Your task to perform on an android device: change the clock display to analog Image 0: 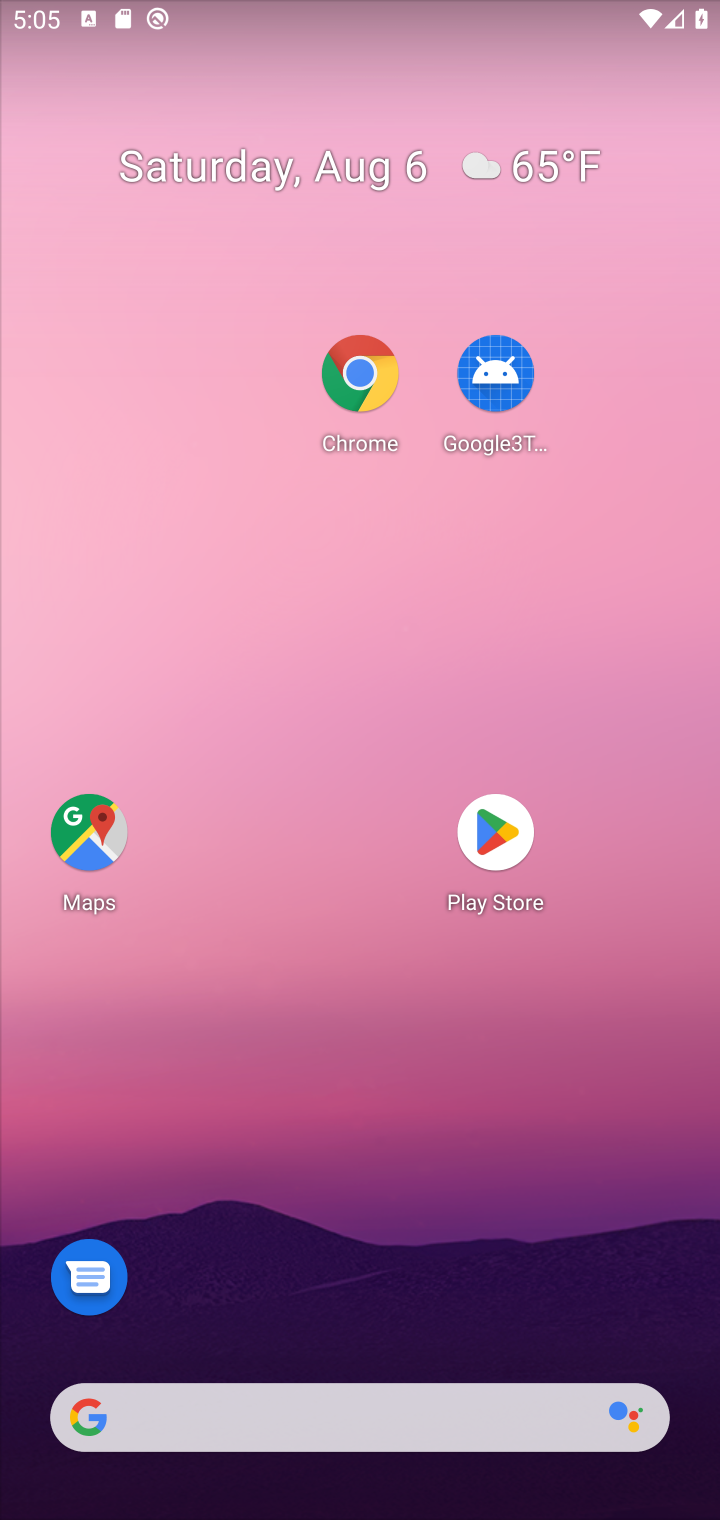
Step 0: drag from (275, 1414) to (199, 66)
Your task to perform on an android device: change the clock display to analog Image 1: 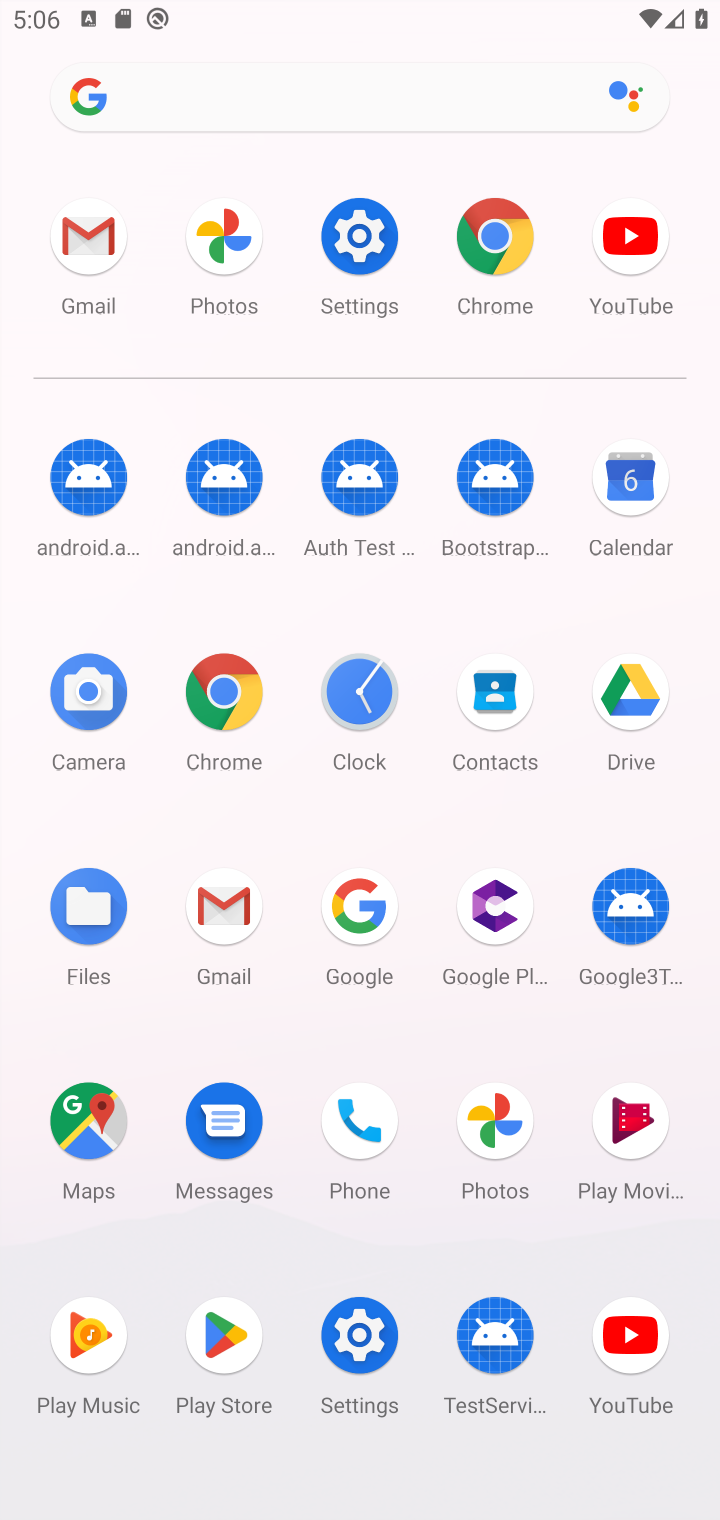
Step 1: click (349, 1322)
Your task to perform on an android device: change the clock display to analog Image 2: 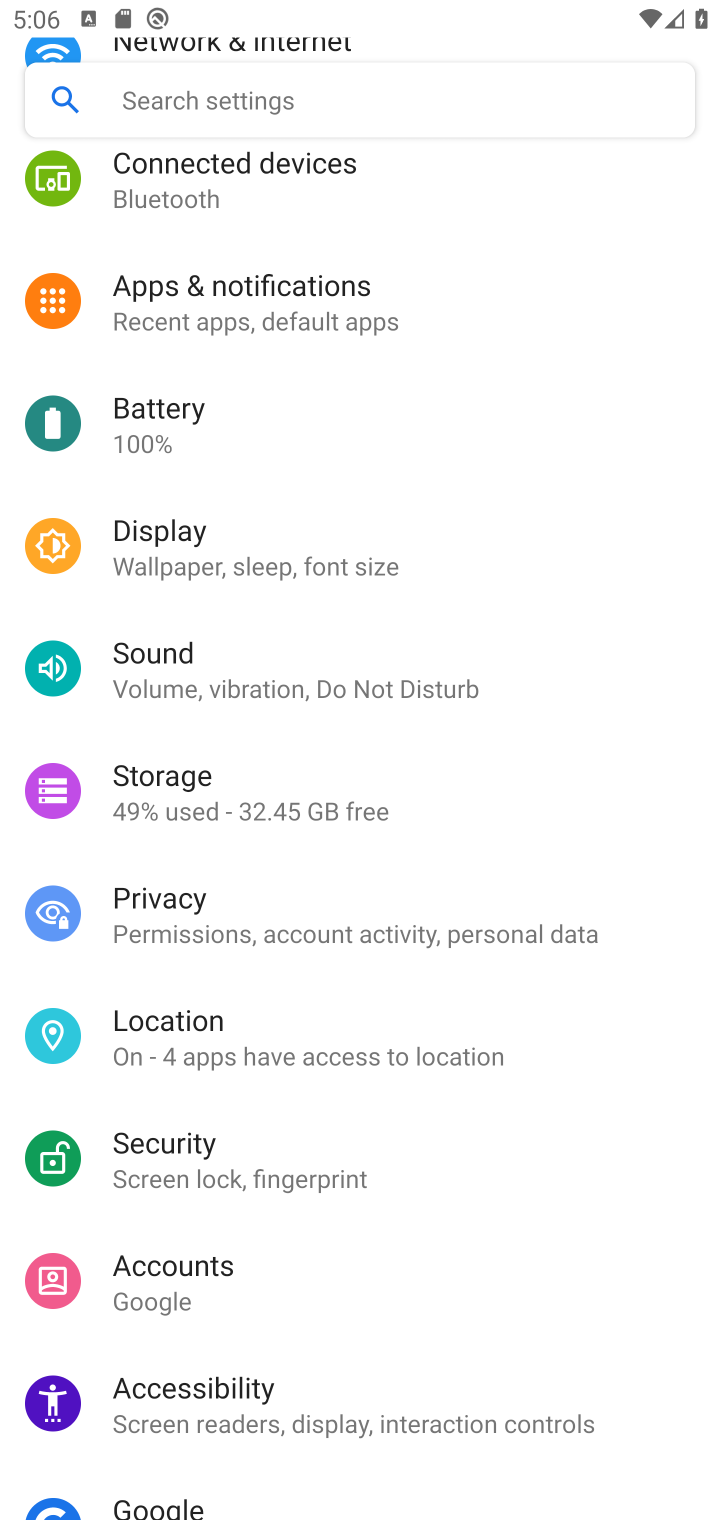
Step 2: press home button
Your task to perform on an android device: change the clock display to analog Image 3: 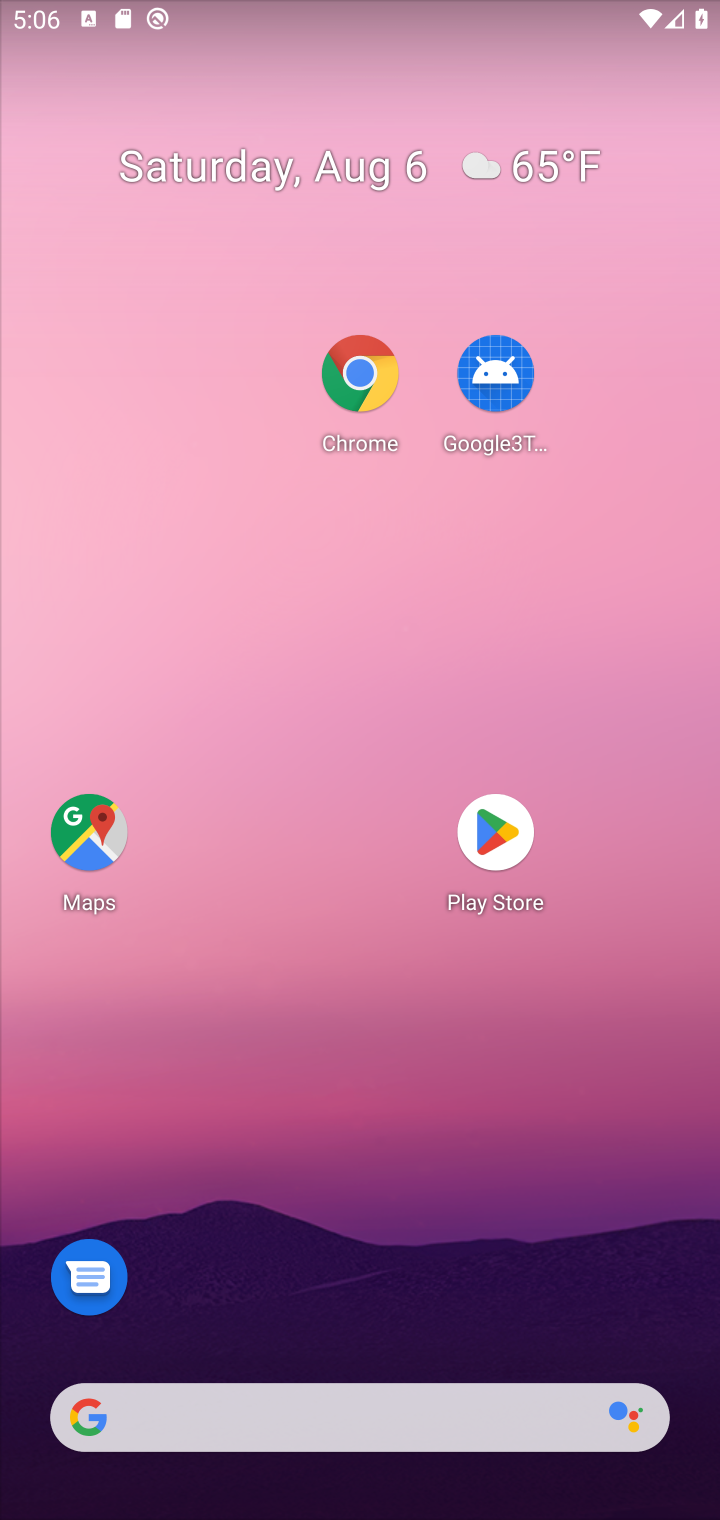
Step 3: drag from (428, 852) to (451, 305)
Your task to perform on an android device: change the clock display to analog Image 4: 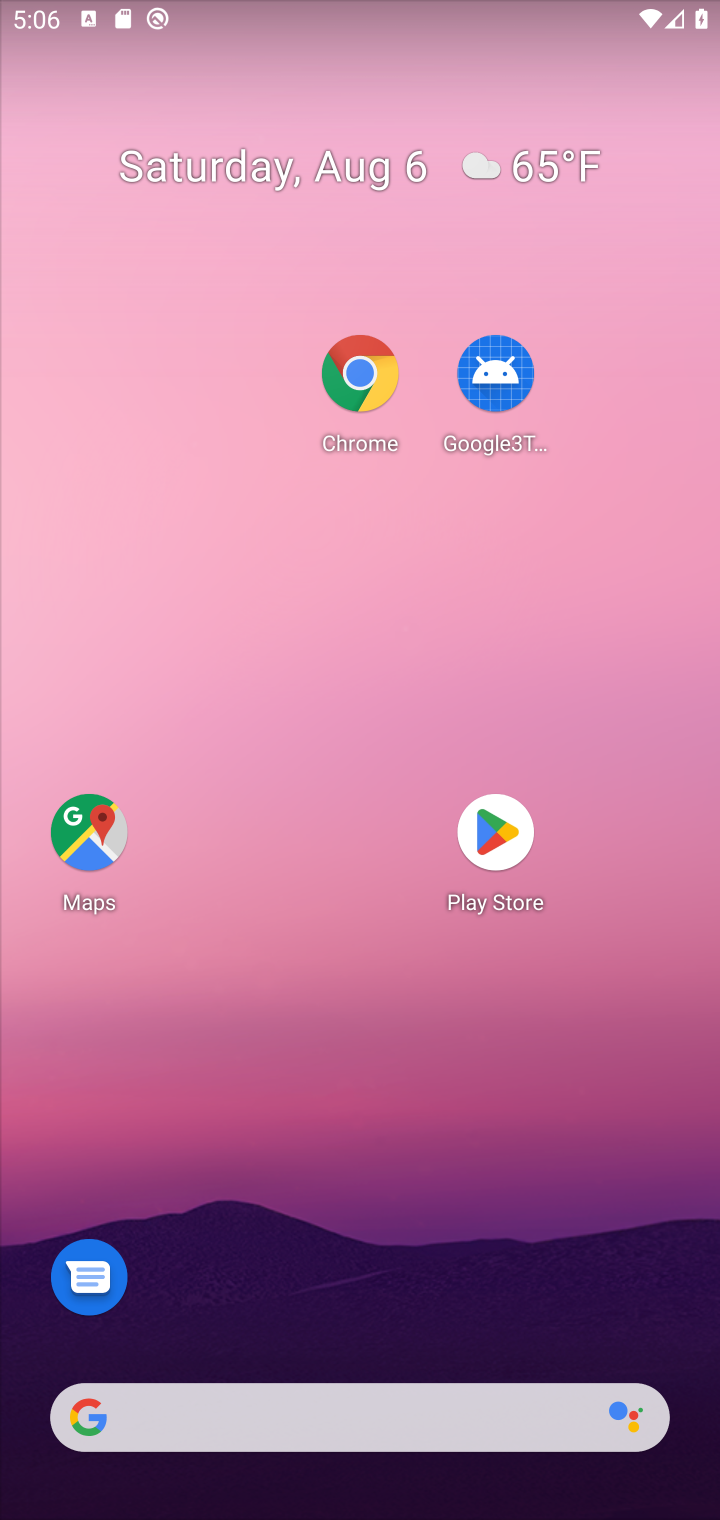
Step 4: drag from (535, 1360) to (519, 534)
Your task to perform on an android device: change the clock display to analog Image 5: 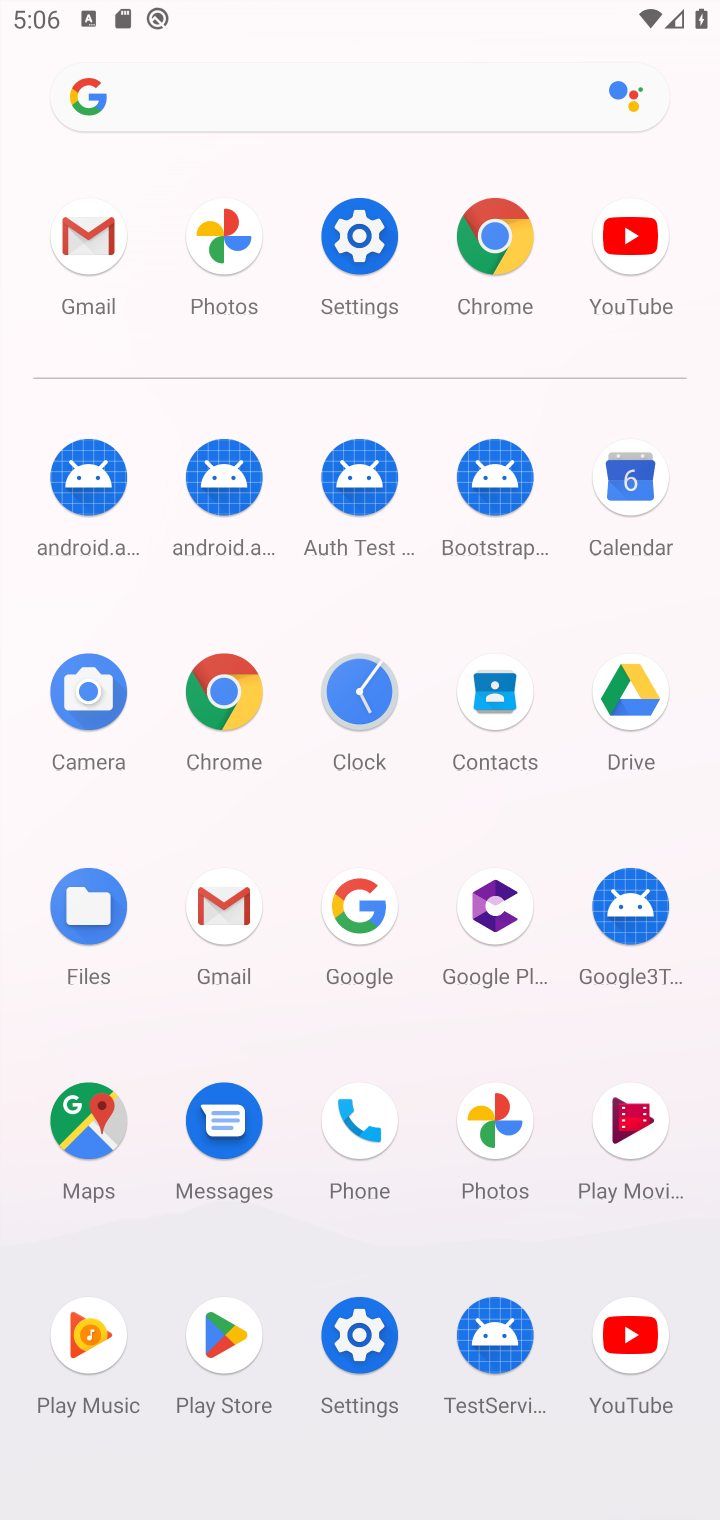
Step 5: click (366, 702)
Your task to perform on an android device: change the clock display to analog Image 6: 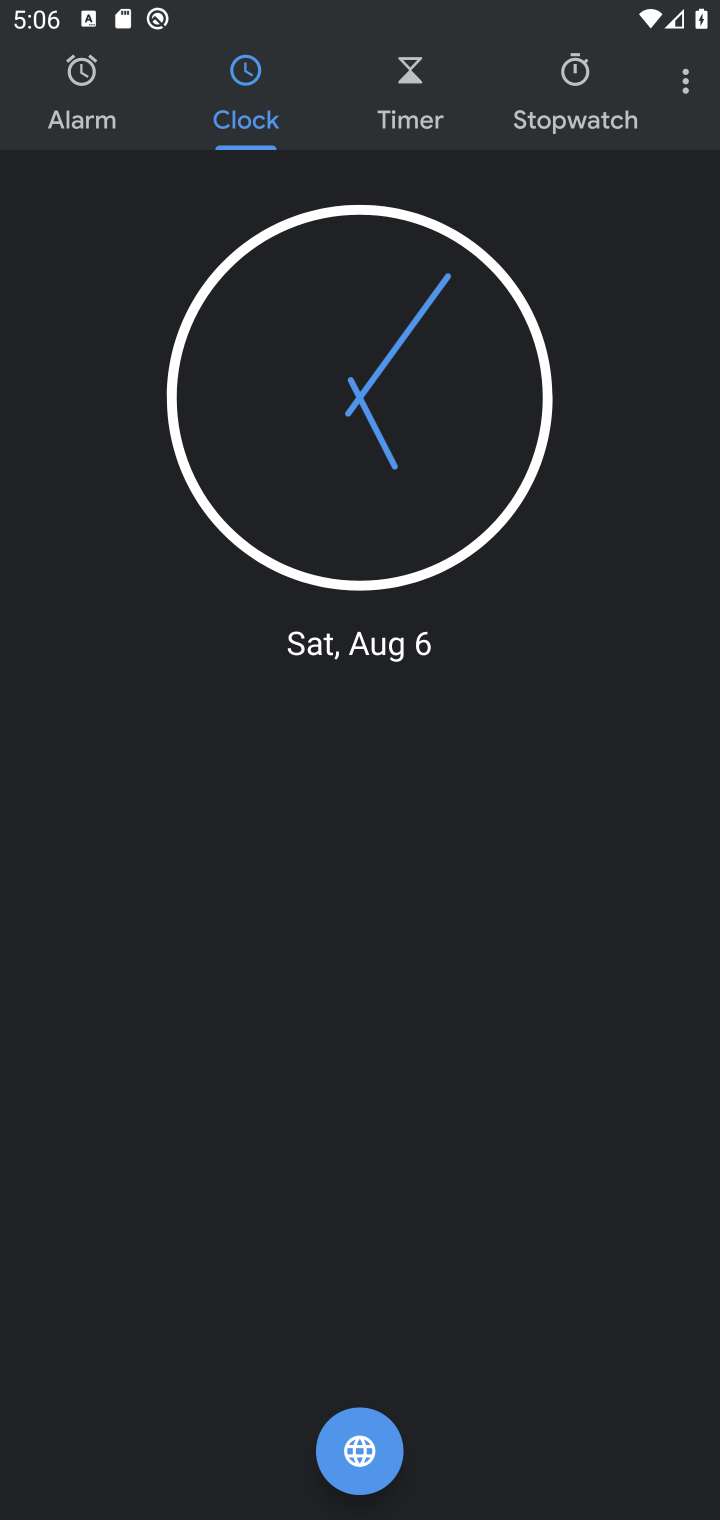
Step 6: click (674, 85)
Your task to perform on an android device: change the clock display to analog Image 7: 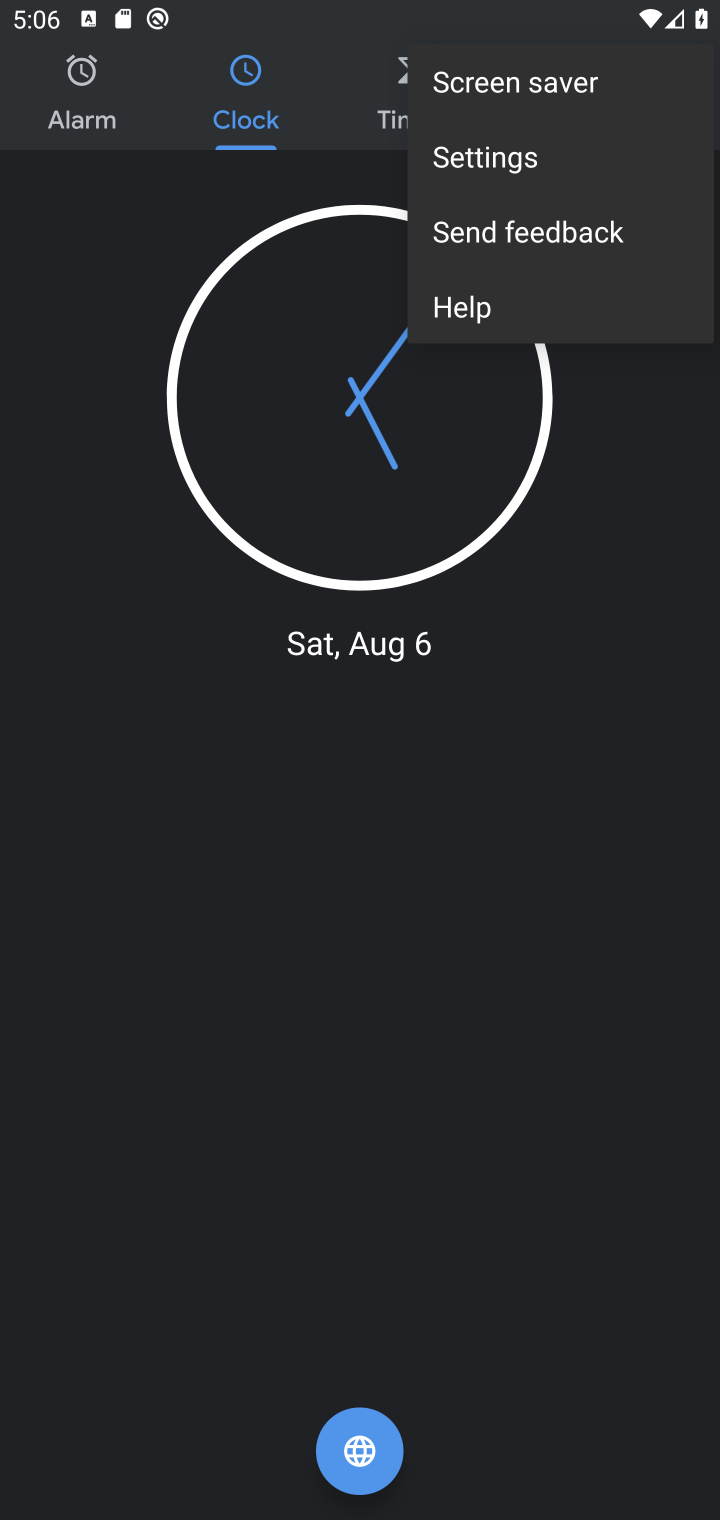
Step 7: click (525, 160)
Your task to perform on an android device: change the clock display to analog Image 8: 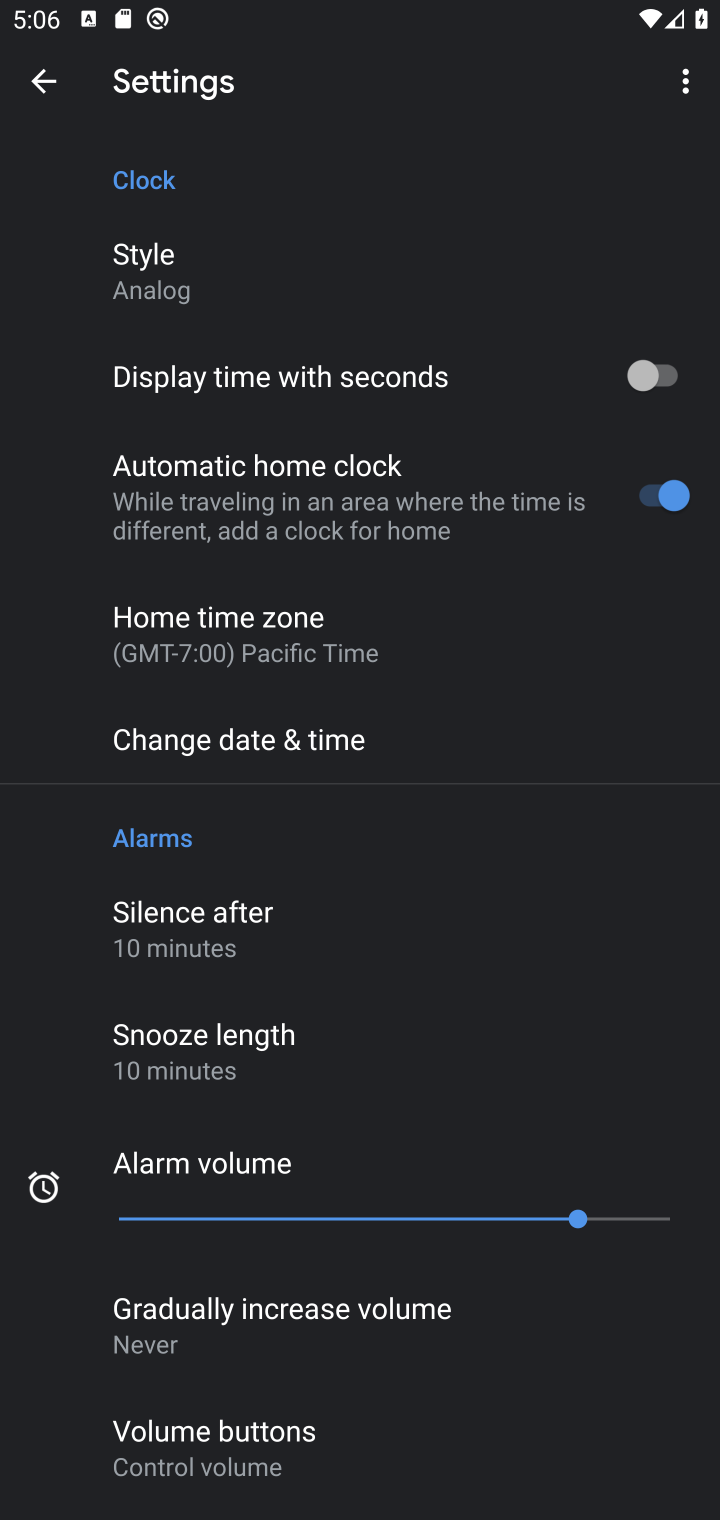
Step 8: click (163, 263)
Your task to perform on an android device: change the clock display to analog Image 9: 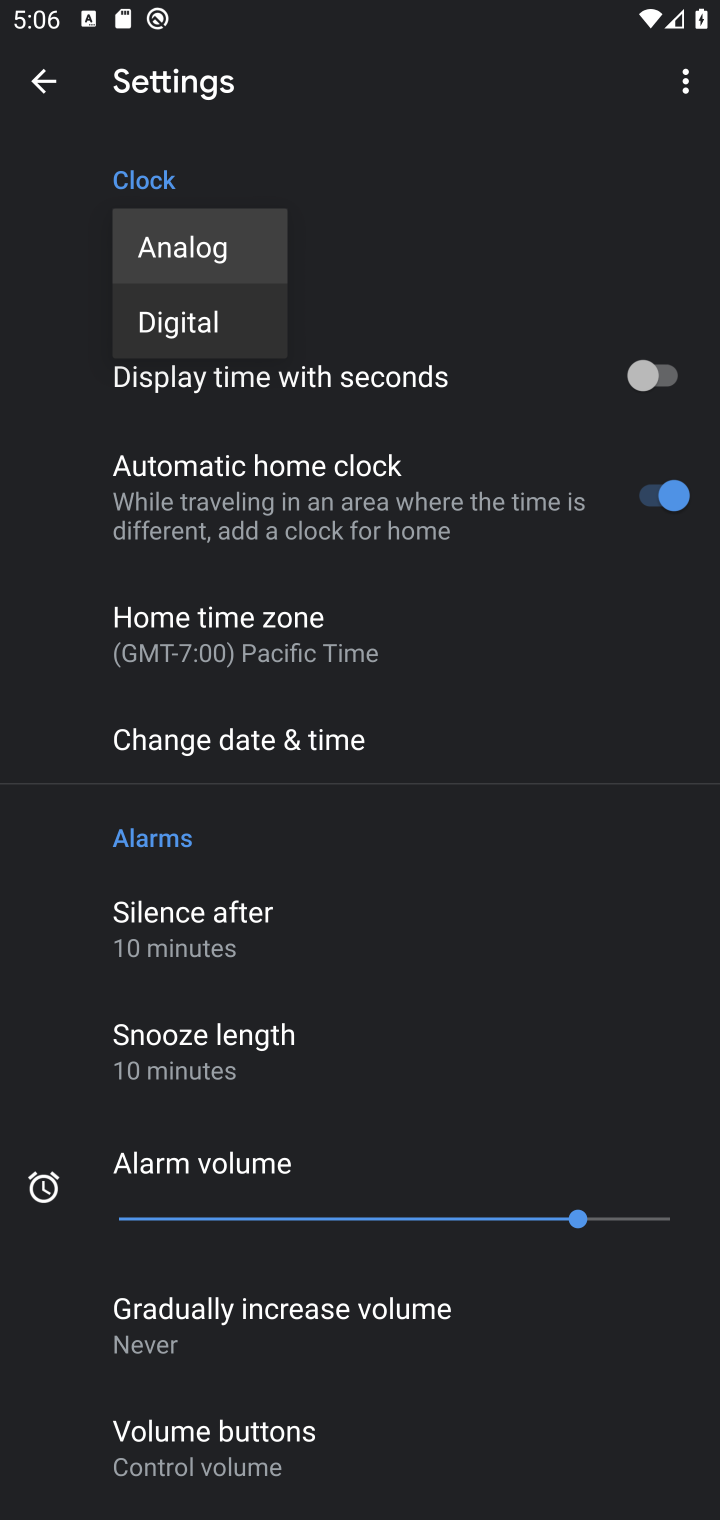
Step 9: task complete